Your task to perform on an android device: toggle improve location accuracy Image 0: 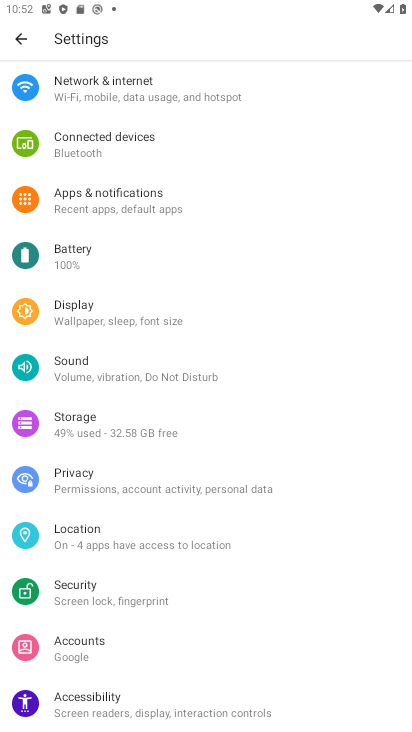
Step 0: click (111, 527)
Your task to perform on an android device: toggle improve location accuracy Image 1: 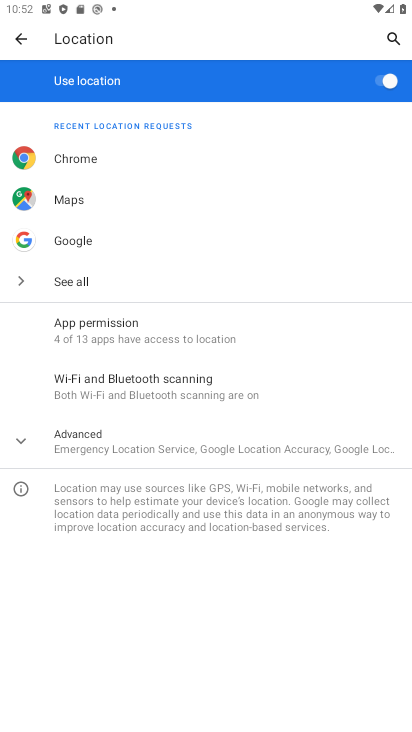
Step 1: click (21, 433)
Your task to perform on an android device: toggle improve location accuracy Image 2: 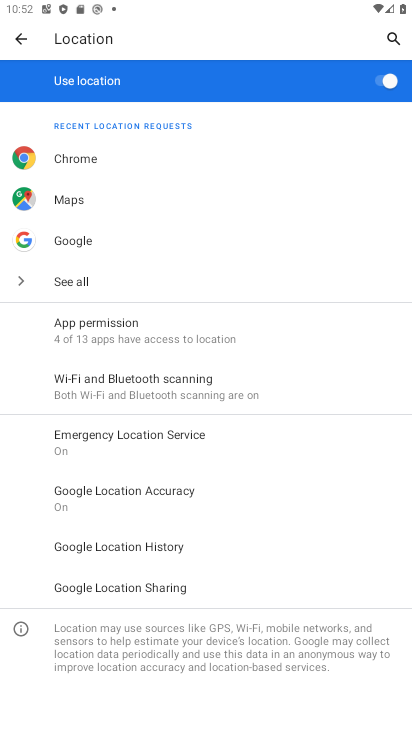
Step 2: click (118, 500)
Your task to perform on an android device: toggle improve location accuracy Image 3: 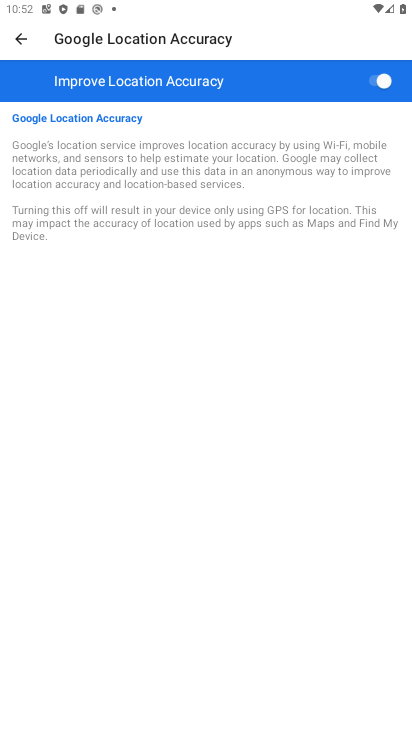
Step 3: task complete